Your task to perform on an android device: View the shopping cart on ebay.com. Add usb-c to usb-a to the cart on ebay.com, then select checkout. Image 0: 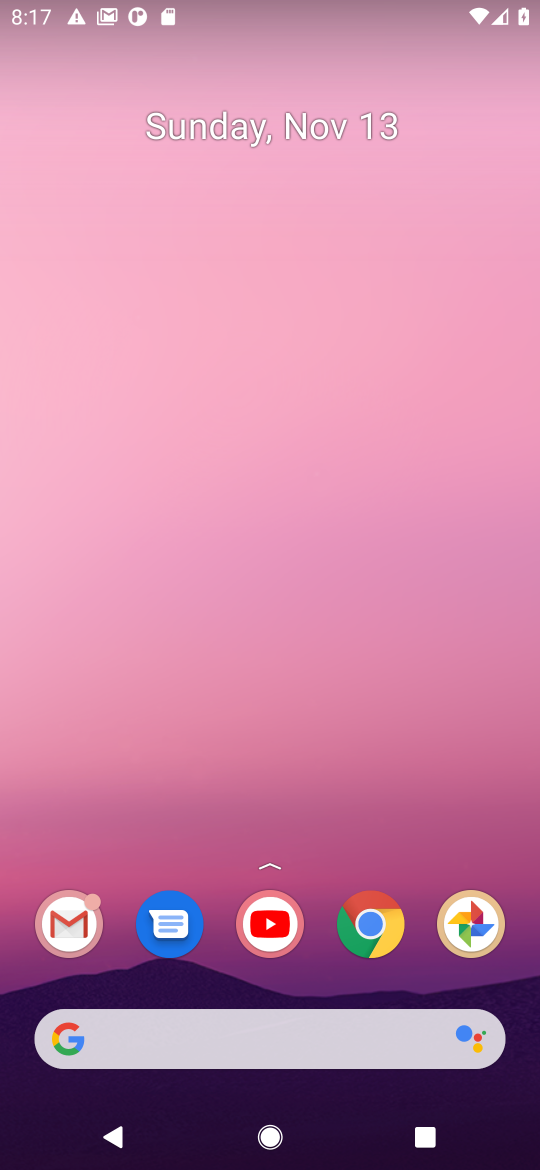
Step 0: click (368, 935)
Your task to perform on an android device: View the shopping cart on ebay.com. Add usb-c to usb-a to the cart on ebay.com, then select checkout. Image 1: 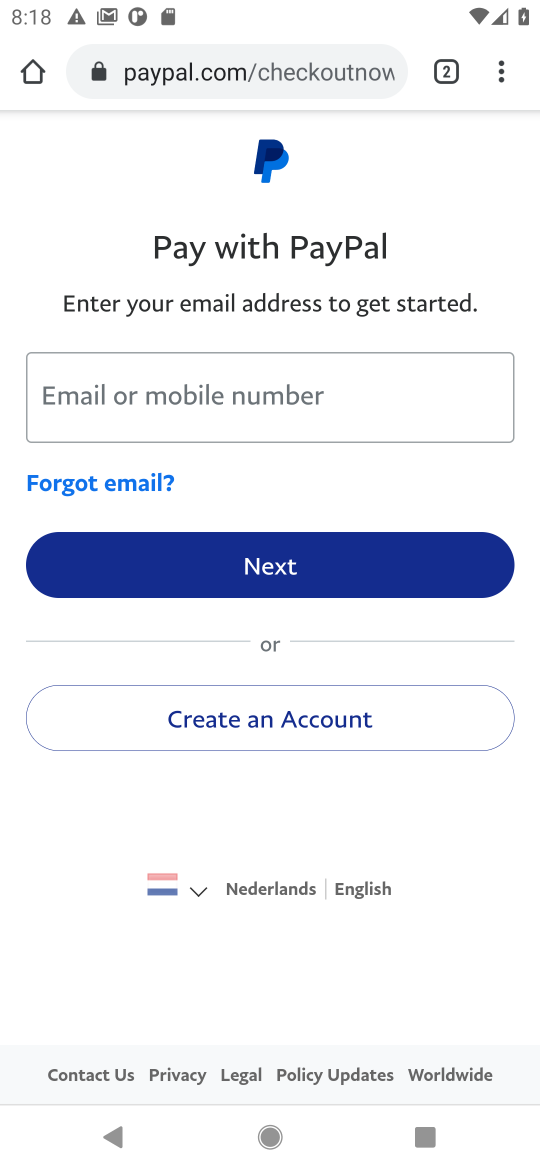
Step 1: click (219, 79)
Your task to perform on an android device: View the shopping cart on ebay.com. Add usb-c to usb-a to the cart on ebay.com, then select checkout. Image 2: 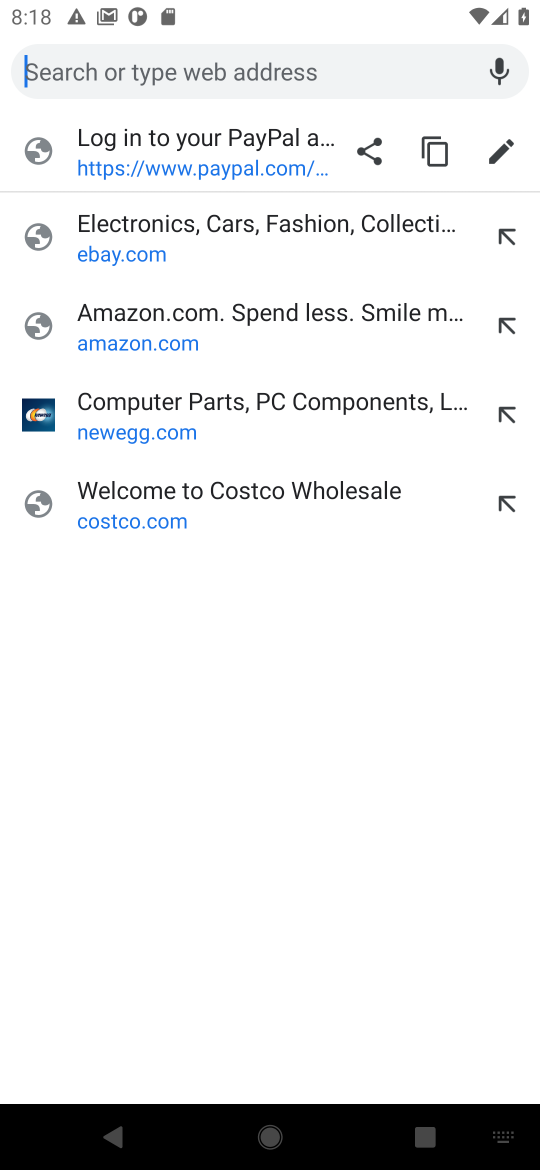
Step 2: click (128, 232)
Your task to perform on an android device: View the shopping cart on ebay.com. Add usb-c to usb-a to the cart on ebay.com, then select checkout. Image 3: 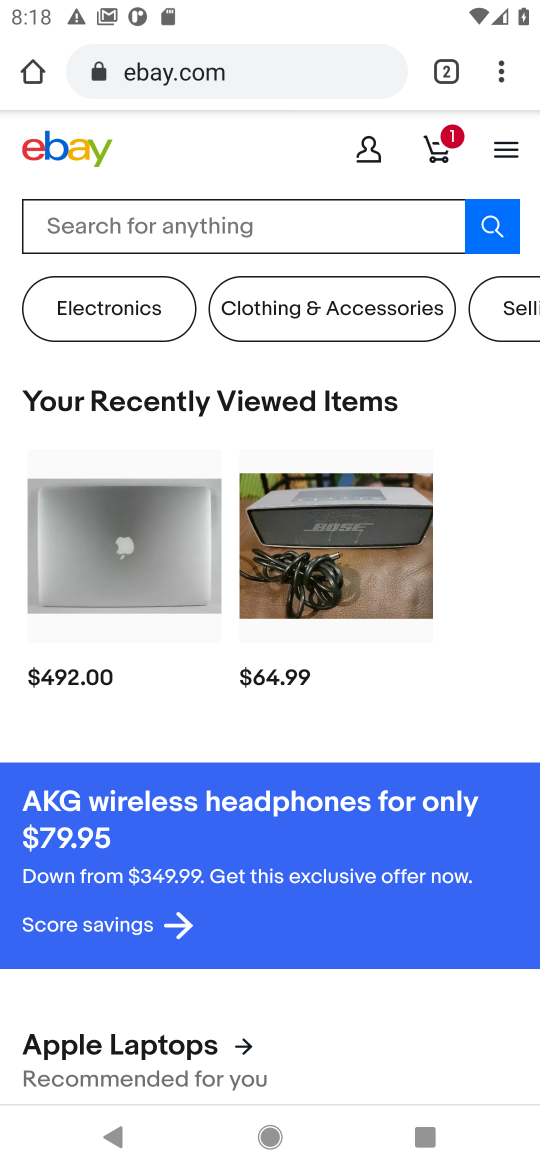
Step 3: click (447, 132)
Your task to perform on an android device: View the shopping cart on ebay.com. Add usb-c to usb-a to the cart on ebay.com, then select checkout. Image 4: 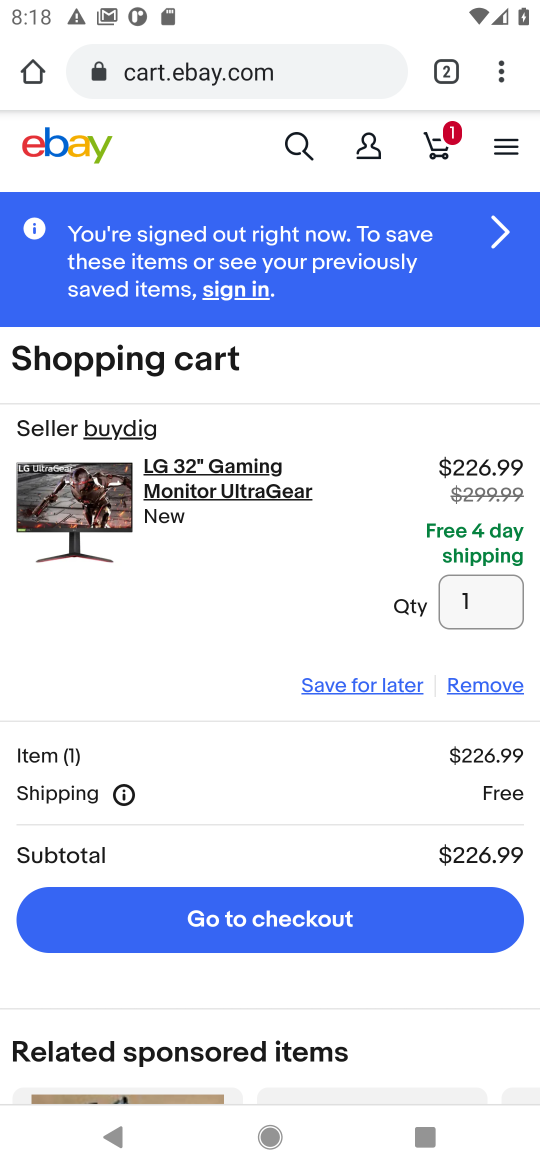
Step 4: click (306, 143)
Your task to perform on an android device: View the shopping cart on ebay.com. Add usb-c to usb-a to the cart on ebay.com, then select checkout. Image 5: 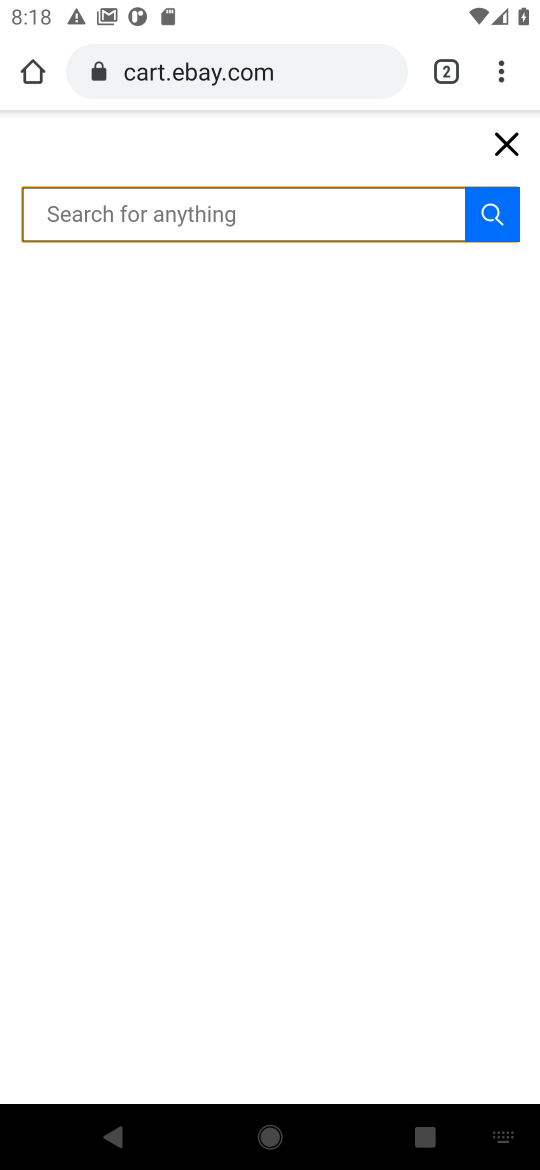
Step 5: type "usb-c to usb-a"
Your task to perform on an android device: View the shopping cart on ebay.com. Add usb-c to usb-a to the cart on ebay.com, then select checkout. Image 6: 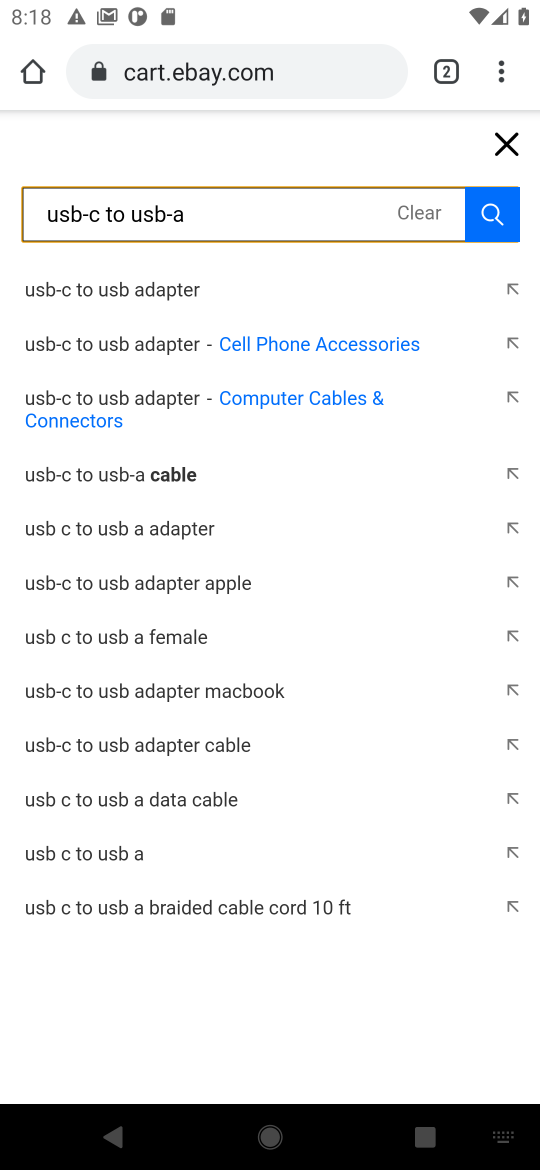
Step 6: click (508, 219)
Your task to perform on an android device: View the shopping cart on ebay.com. Add usb-c to usb-a to the cart on ebay.com, then select checkout. Image 7: 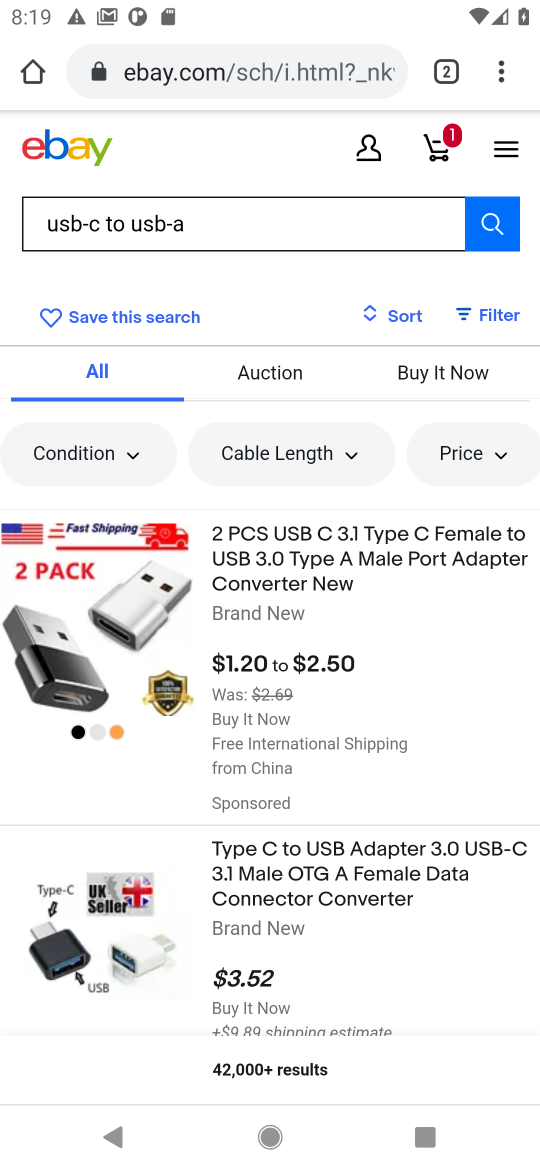
Step 7: drag from (175, 960) to (143, 687)
Your task to perform on an android device: View the shopping cart on ebay.com. Add usb-c to usb-a to the cart on ebay.com, then select checkout. Image 8: 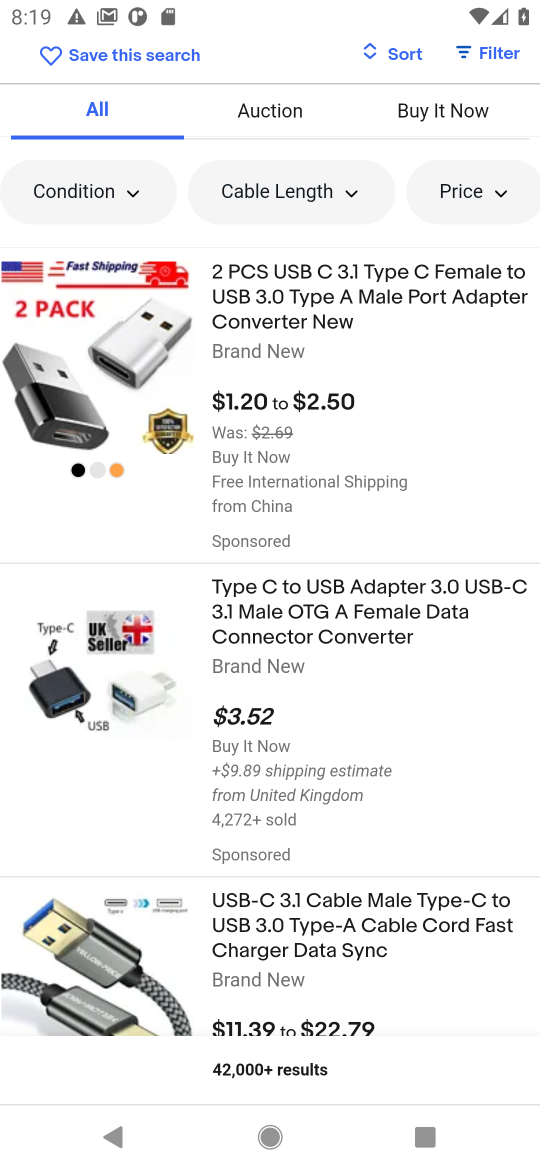
Step 8: drag from (124, 917) to (116, 754)
Your task to perform on an android device: View the shopping cart on ebay.com. Add usb-c to usb-a to the cart on ebay.com, then select checkout. Image 9: 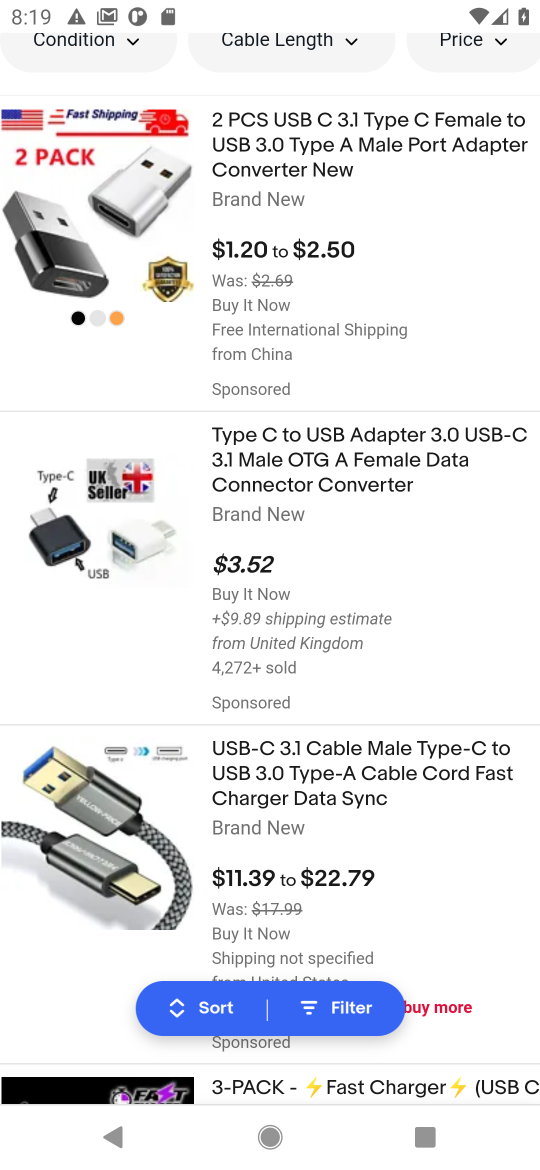
Step 9: drag from (176, 871) to (173, 690)
Your task to perform on an android device: View the shopping cart on ebay.com. Add usb-c to usb-a to the cart on ebay.com, then select checkout. Image 10: 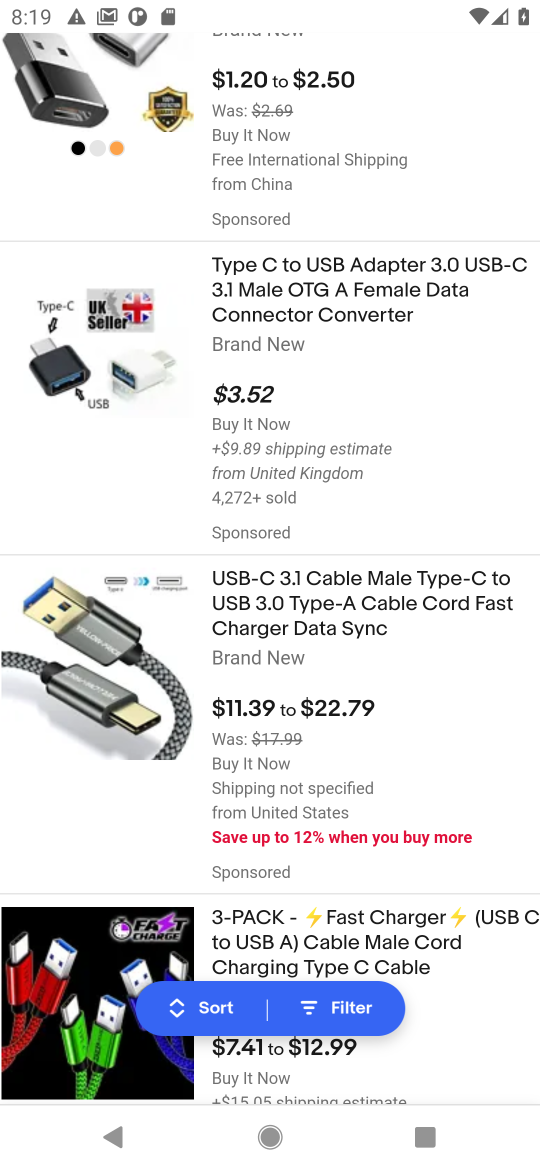
Step 10: click (121, 712)
Your task to perform on an android device: View the shopping cart on ebay.com. Add usb-c to usb-a to the cart on ebay.com, then select checkout. Image 11: 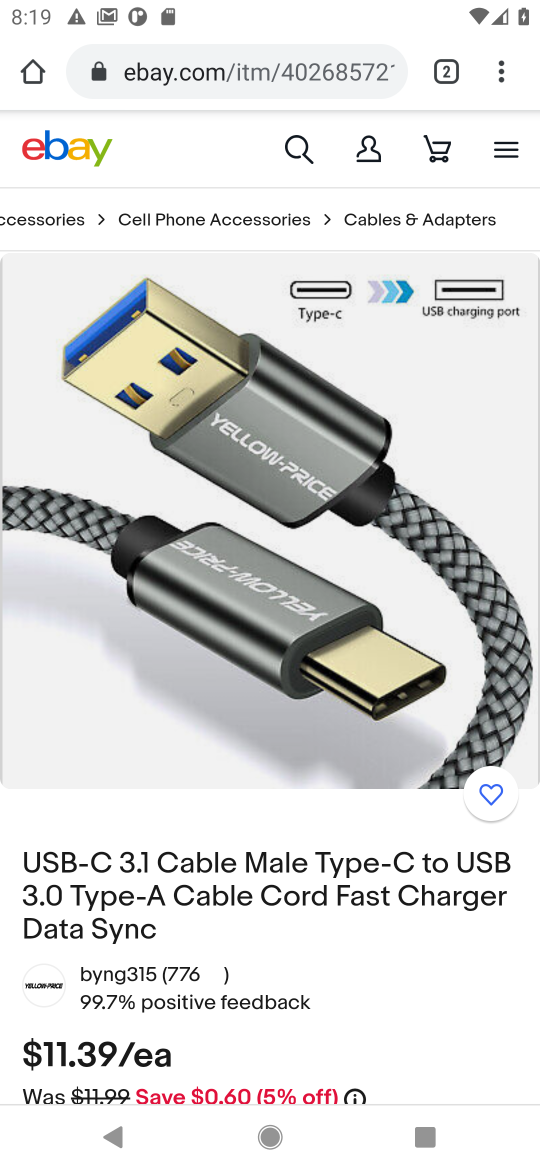
Step 11: drag from (269, 863) to (287, 452)
Your task to perform on an android device: View the shopping cart on ebay.com. Add usb-c to usb-a to the cart on ebay.com, then select checkout. Image 12: 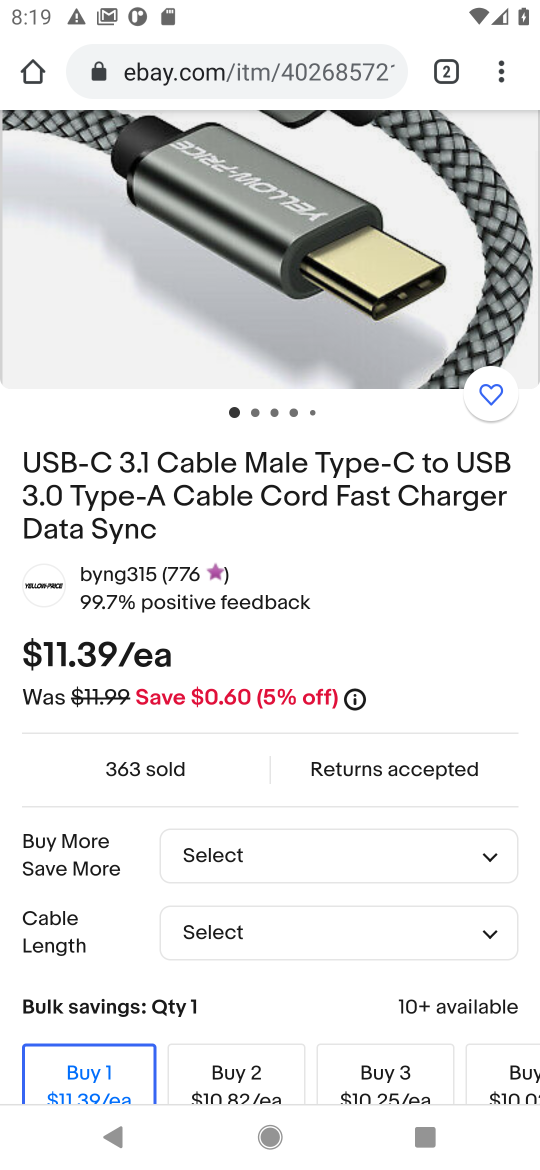
Step 12: drag from (267, 816) to (251, 535)
Your task to perform on an android device: View the shopping cart on ebay.com. Add usb-c to usb-a to the cart on ebay.com, then select checkout. Image 13: 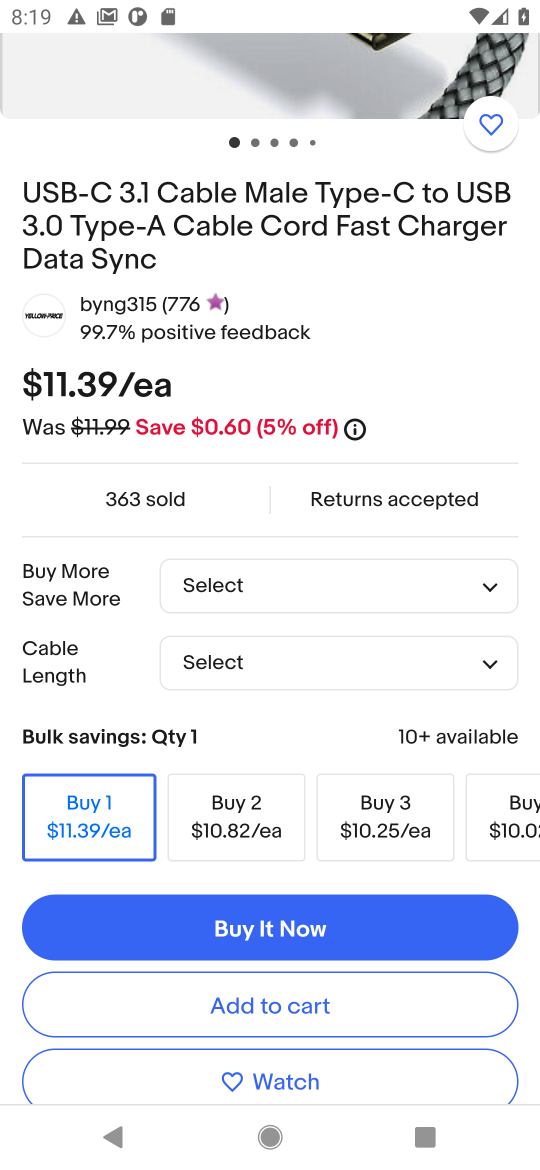
Step 13: click (484, 589)
Your task to perform on an android device: View the shopping cart on ebay.com. Add usb-c to usb-a to the cart on ebay.com, then select checkout. Image 14: 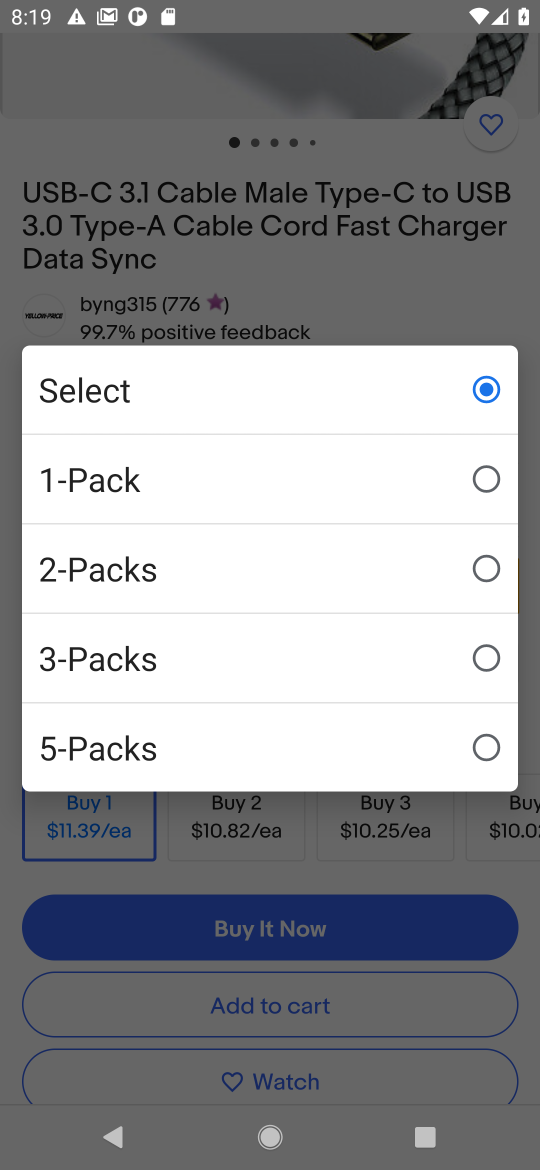
Step 14: click (82, 481)
Your task to perform on an android device: View the shopping cart on ebay.com. Add usb-c to usb-a to the cart on ebay.com, then select checkout. Image 15: 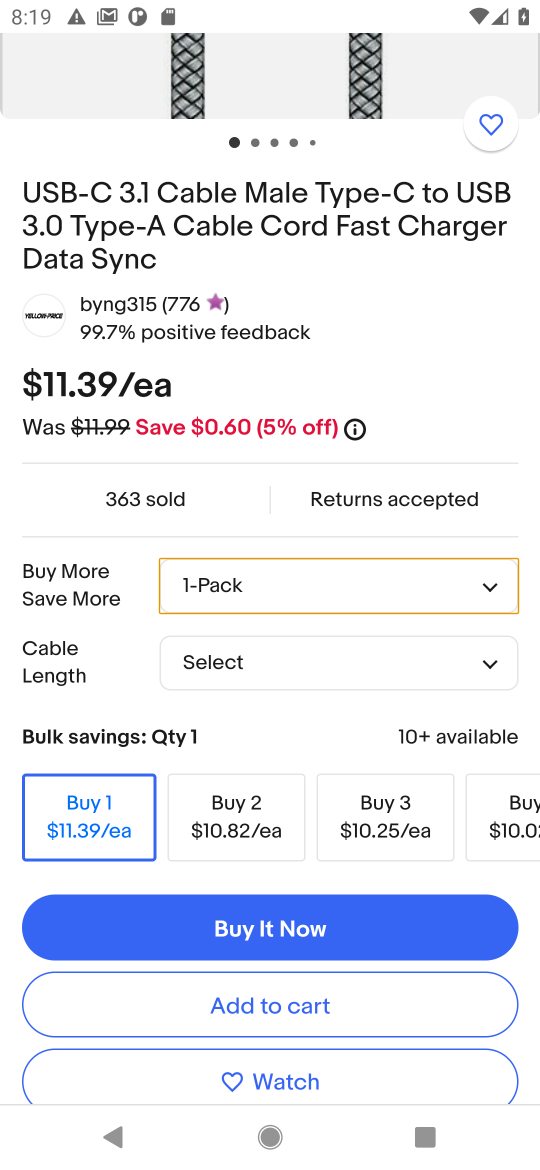
Step 15: click (480, 665)
Your task to perform on an android device: View the shopping cart on ebay.com. Add usb-c to usb-a to the cart on ebay.com, then select checkout. Image 16: 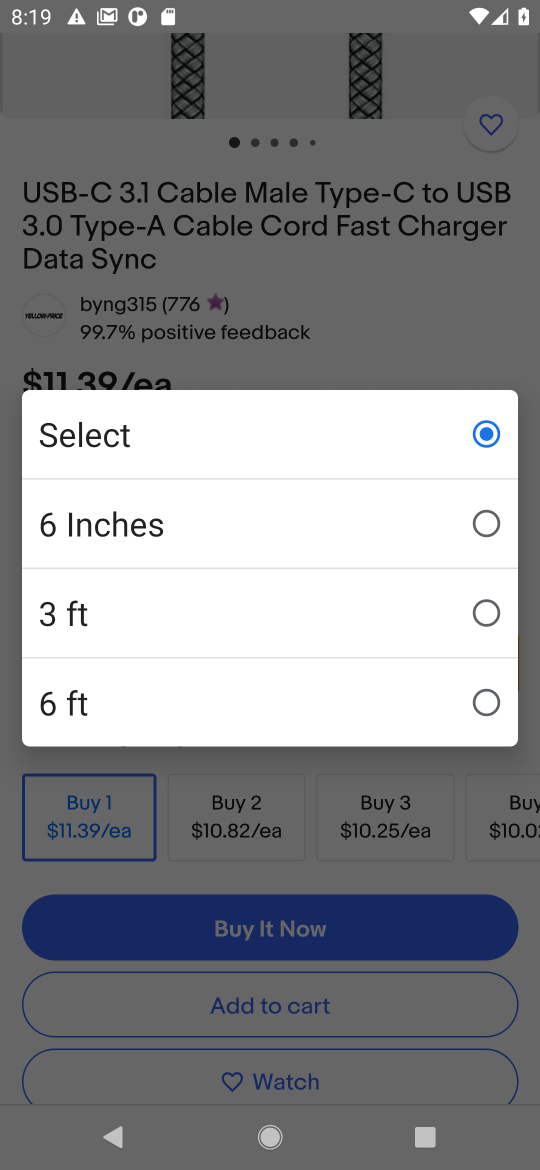
Step 16: click (119, 537)
Your task to perform on an android device: View the shopping cart on ebay.com. Add usb-c to usb-a to the cart on ebay.com, then select checkout. Image 17: 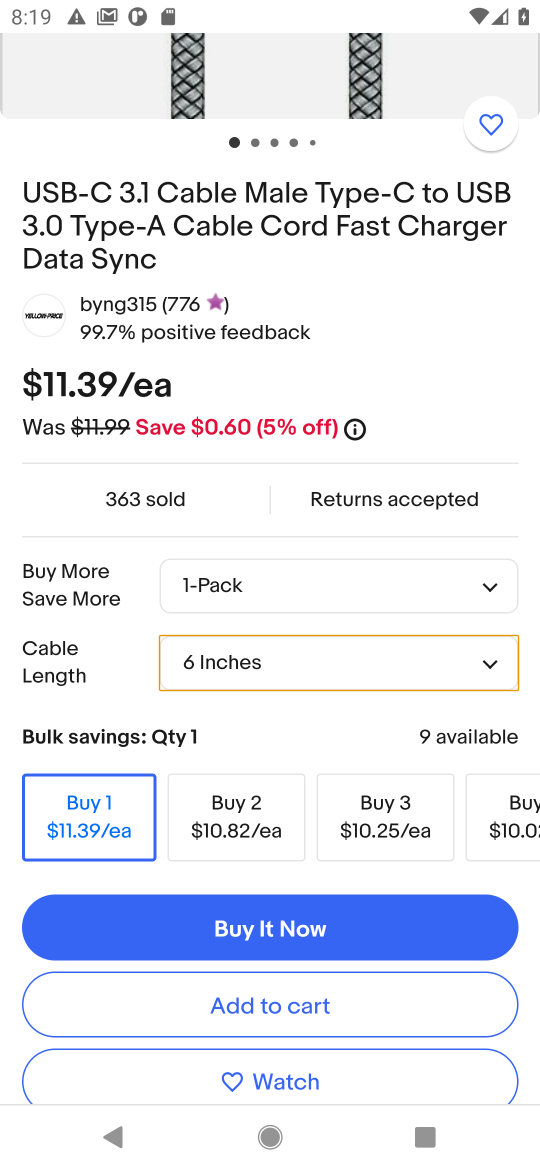
Step 17: click (247, 995)
Your task to perform on an android device: View the shopping cart on ebay.com. Add usb-c to usb-a to the cart on ebay.com, then select checkout. Image 18: 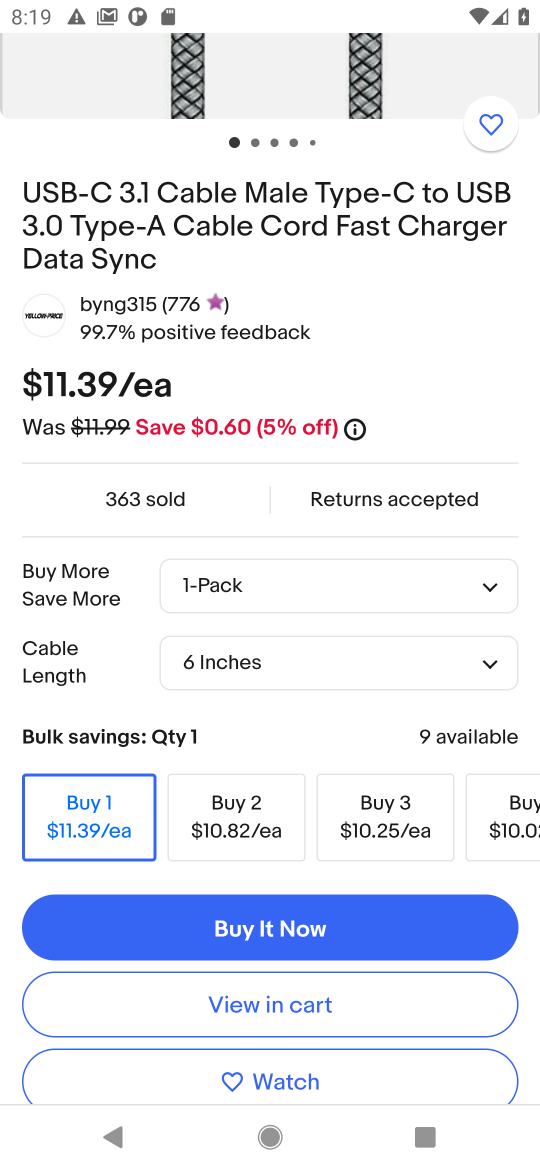
Step 18: click (247, 995)
Your task to perform on an android device: View the shopping cart on ebay.com. Add usb-c to usb-a to the cart on ebay.com, then select checkout. Image 19: 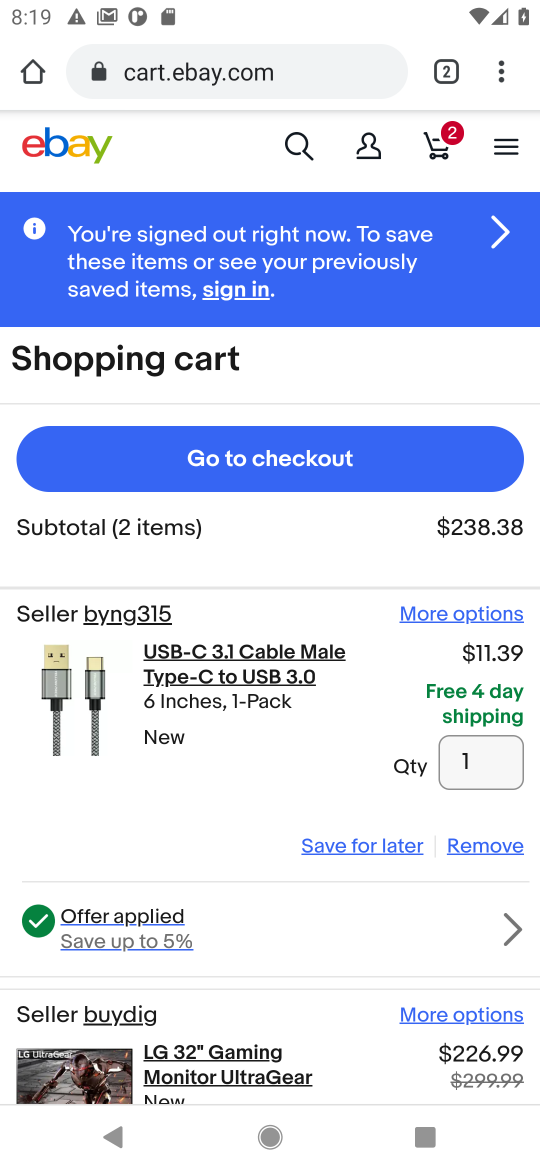
Step 19: click (278, 447)
Your task to perform on an android device: View the shopping cart on ebay.com. Add usb-c to usb-a to the cart on ebay.com, then select checkout. Image 20: 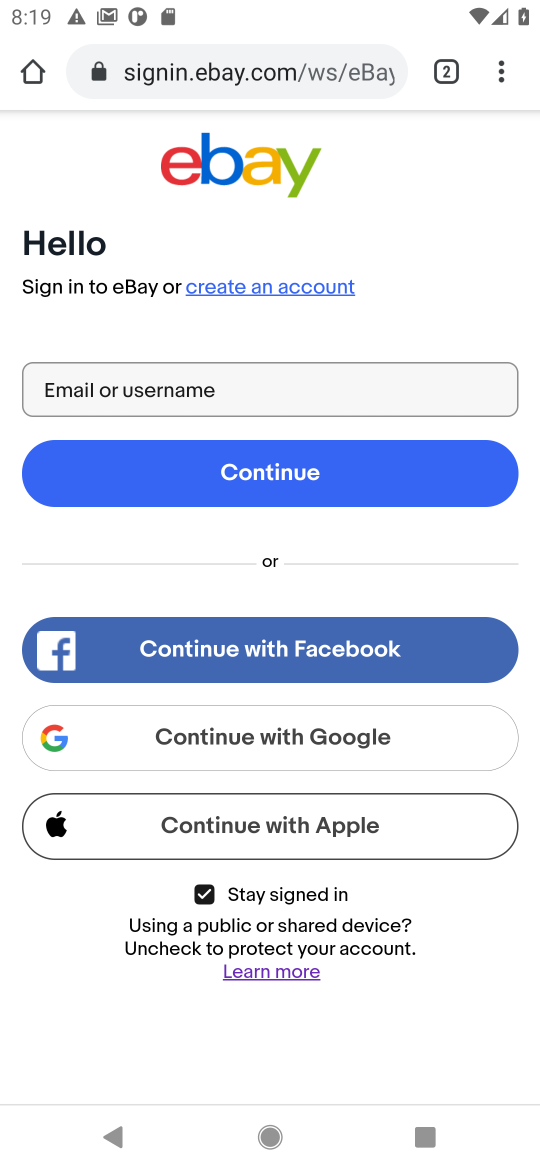
Step 20: task complete